Your task to perform on an android device: open chrome privacy settings Image 0: 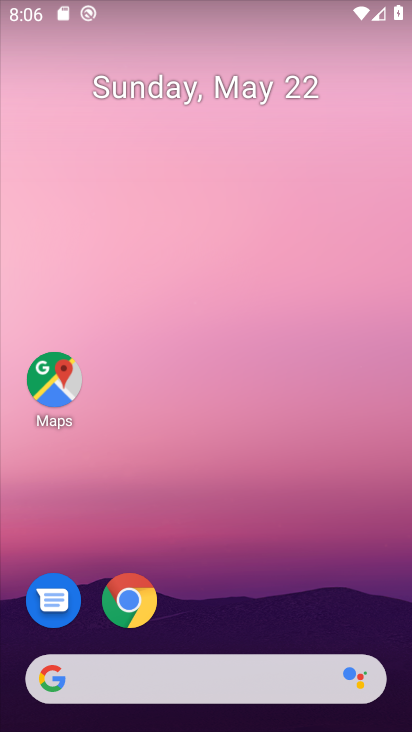
Step 0: click (137, 597)
Your task to perform on an android device: open chrome privacy settings Image 1: 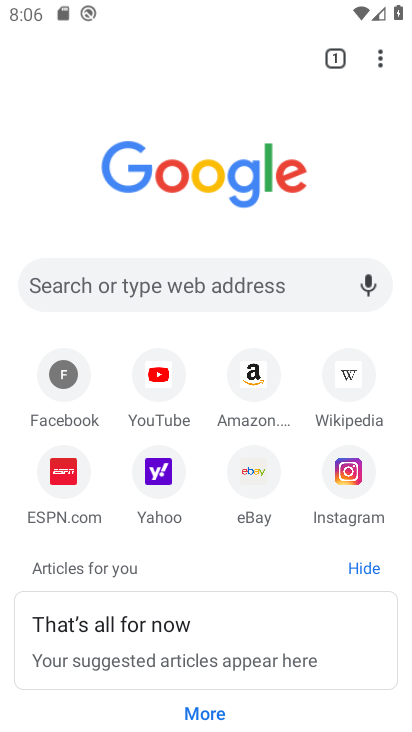
Step 1: click (380, 55)
Your task to perform on an android device: open chrome privacy settings Image 2: 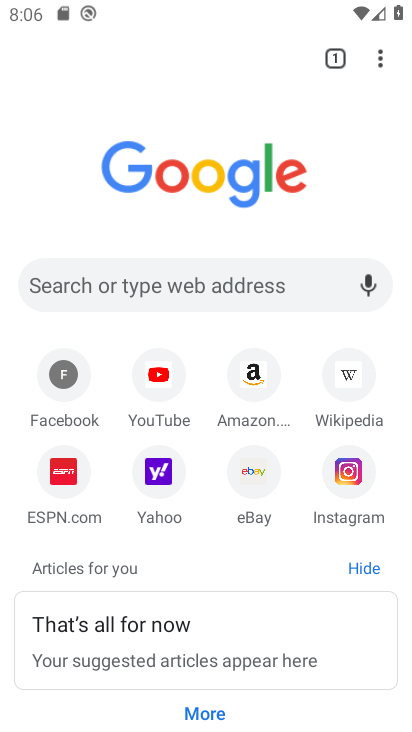
Step 2: click (379, 54)
Your task to perform on an android device: open chrome privacy settings Image 3: 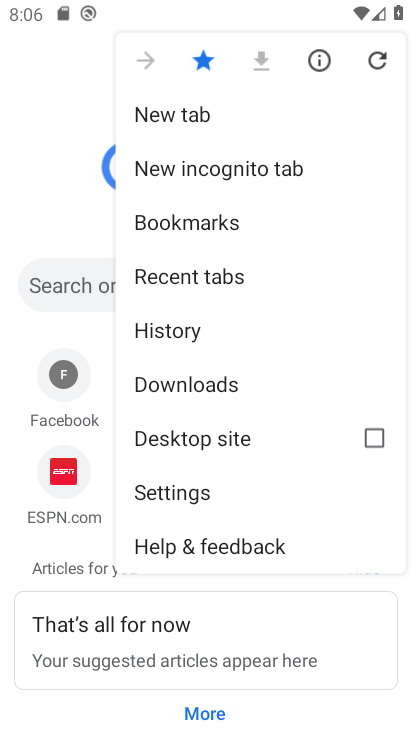
Step 3: drag from (244, 547) to (302, 123)
Your task to perform on an android device: open chrome privacy settings Image 4: 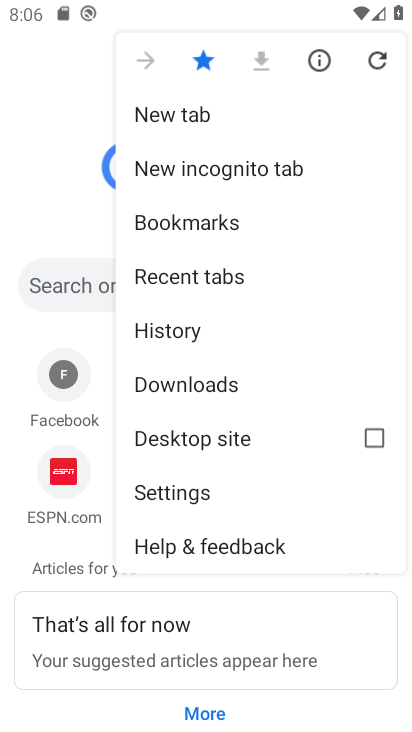
Step 4: click (169, 495)
Your task to perform on an android device: open chrome privacy settings Image 5: 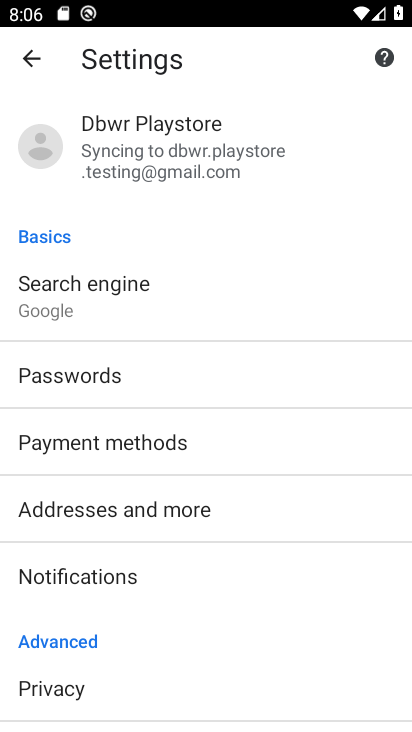
Step 5: drag from (183, 695) to (225, 340)
Your task to perform on an android device: open chrome privacy settings Image 6: 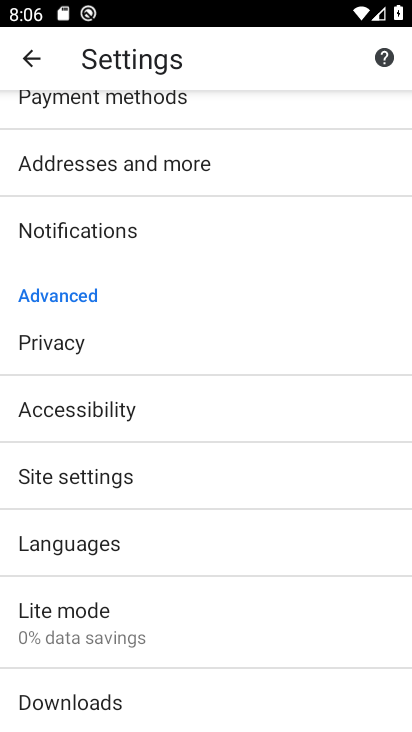
Step 6: click (61, 341)
Your task to perform on an android device: open chrome privacy settings Image 7: 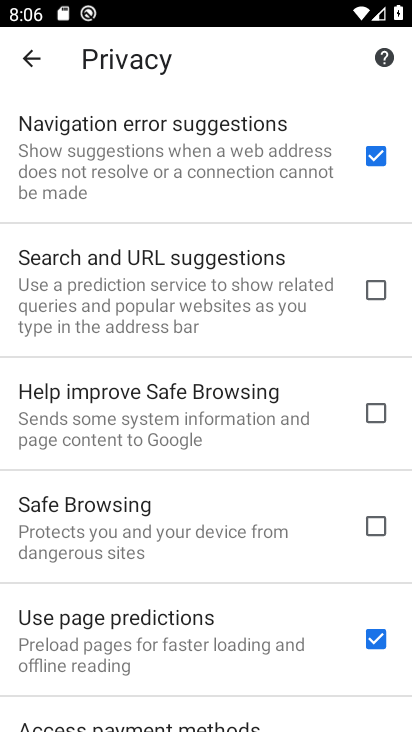
Step 7: task complete